Your task to perform on an android device: turn off location Image 0: 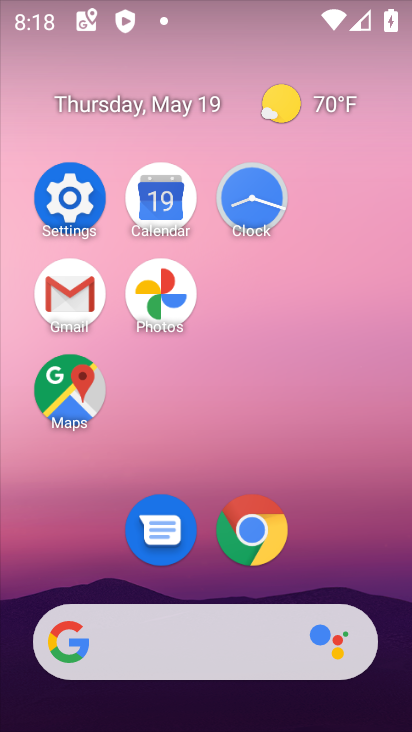
Step 0: click (77, 202)
Your task to perform on an android device: turn off location Image 1: 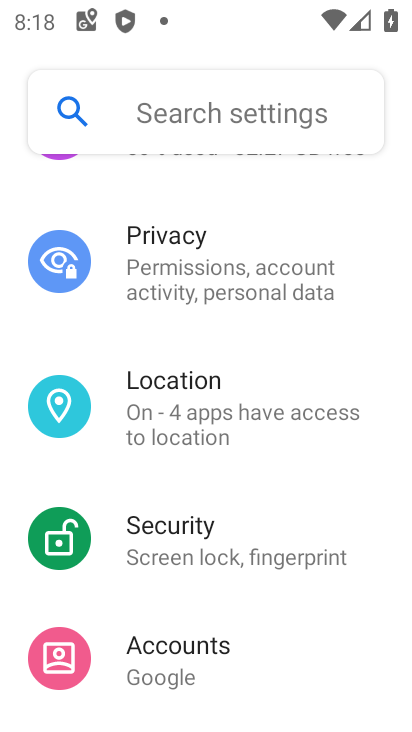
Step 1: drag from (280, 616) to (254, 186)
Your task to perform on an android device: turn off location Image 2: 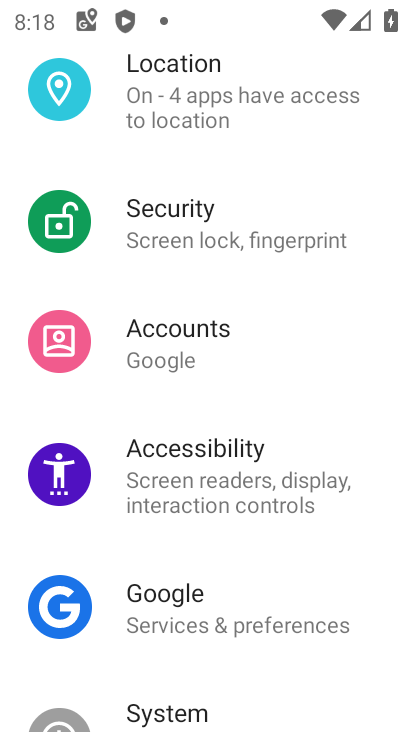
Step 2: drag from (263, 570) to (235, 663)
Your task to perform on an android device: turn off location Image 3: 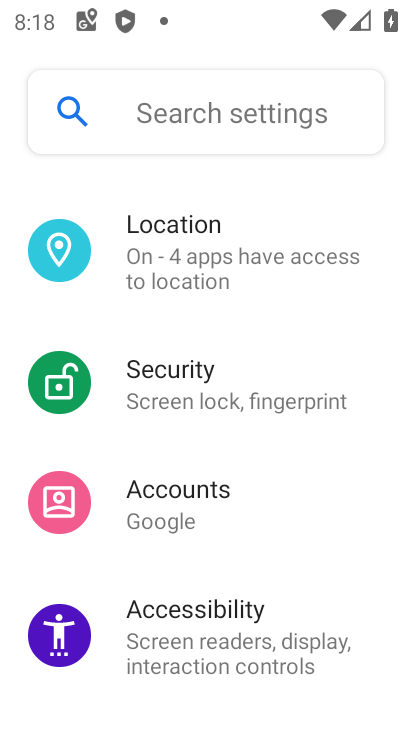
Step 3: click (272, 229)
Your task to perform on an android device: turn off location Image 4: 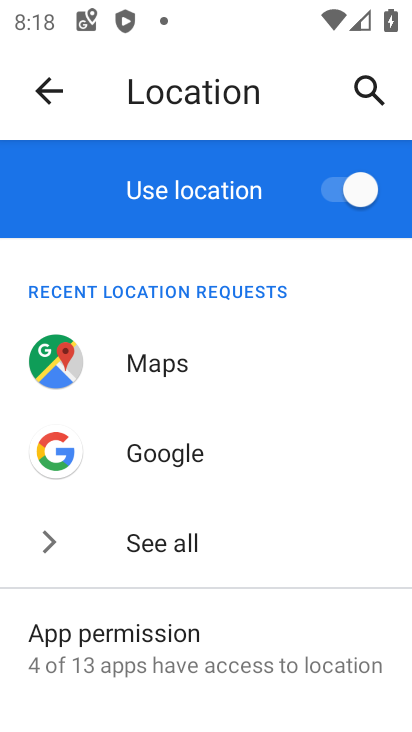
Step 4: click (369, 172)
Your task to perform on an android device: turn off location Image 5: 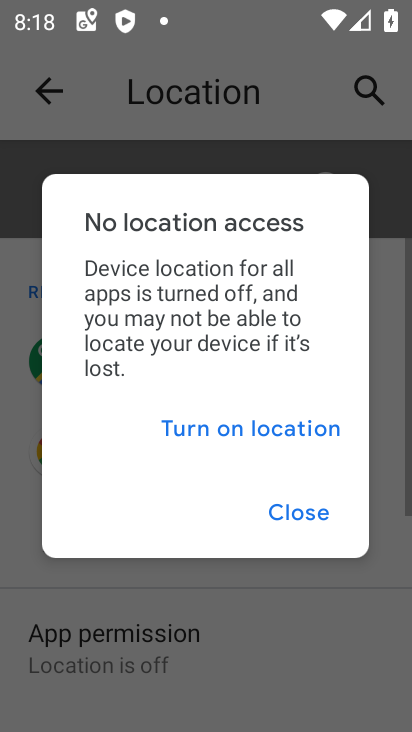
Step 5: task complete